Your task to perform on an android device: Open Google Image 0: 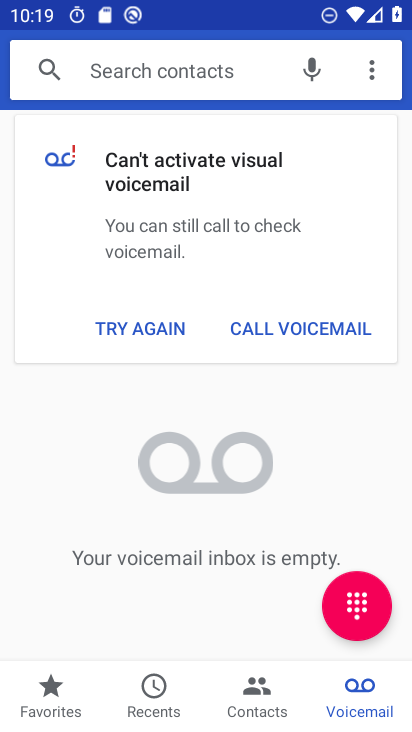
Step 0: press home button
Your task to perform on an android device: Open Google Image 1: 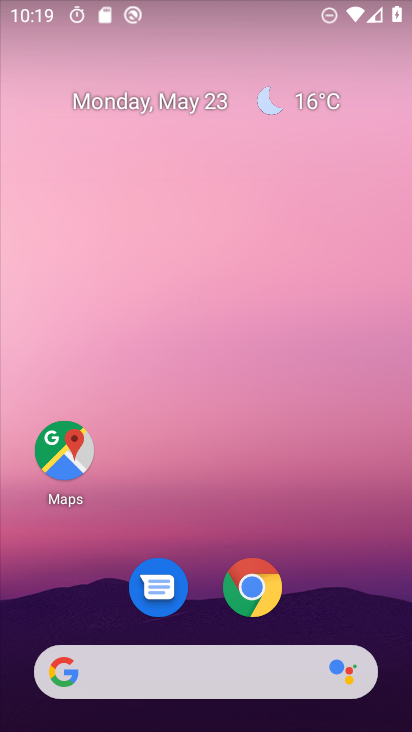
Step 1: drag from (194, 479) to (251, 182)
Your task to perform on an android device: Open Google Image 2: 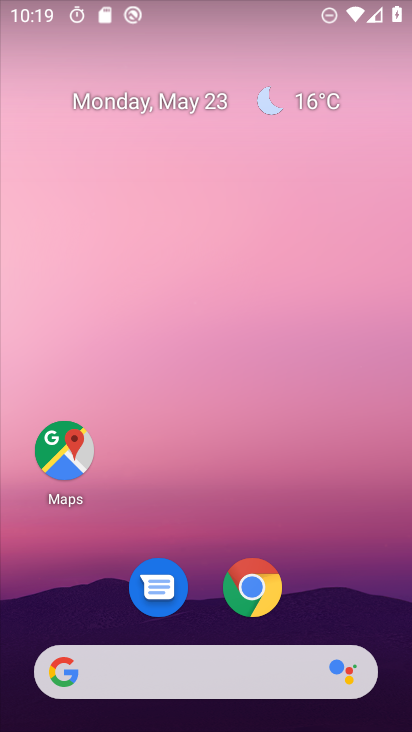
Step 2: drag from (226, 478) to (237, 5)
Your task to perform on an android device: Open Google Image 3: 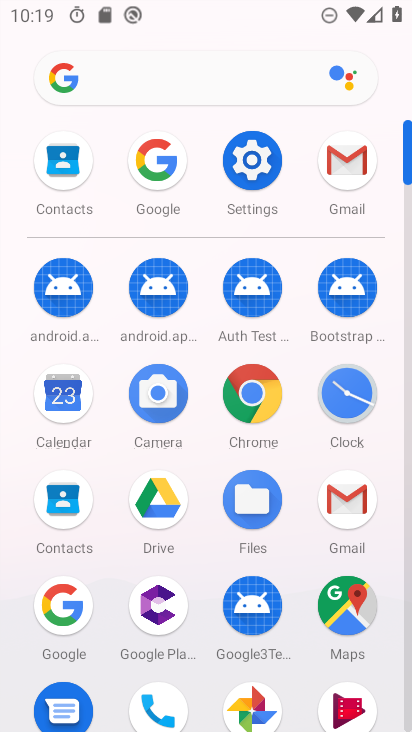
Step 3: click (161, 167)
Your task to perform on an android device: Open Google Image 4: 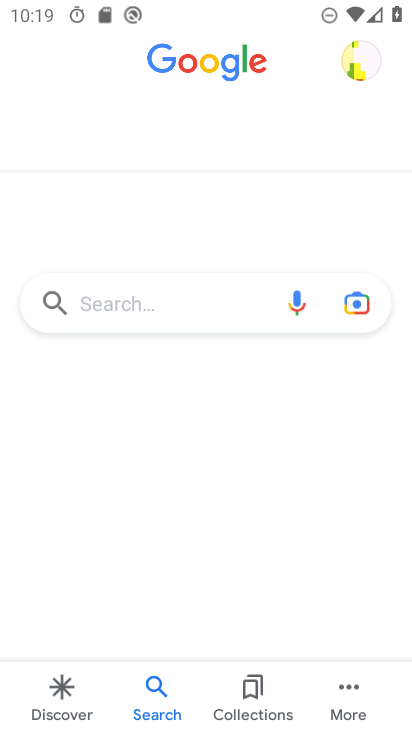
Step 4: task complete